Your task to perform on an android device: turn off javascript in the chrome app Image 0: 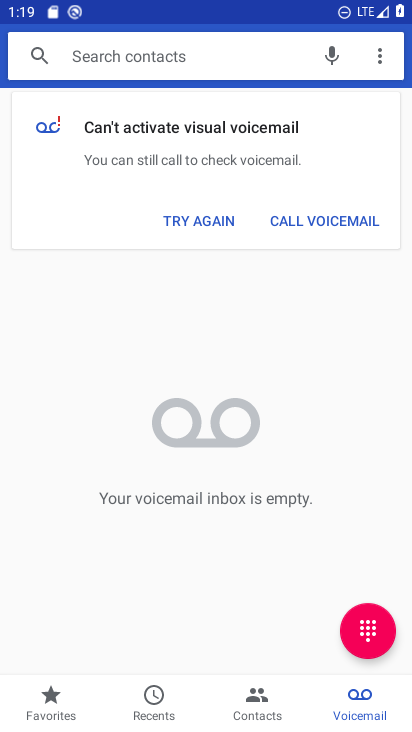
Step 0: press home button
Your task to perform on an android device: turn off javascript in the chrome app Image 1: 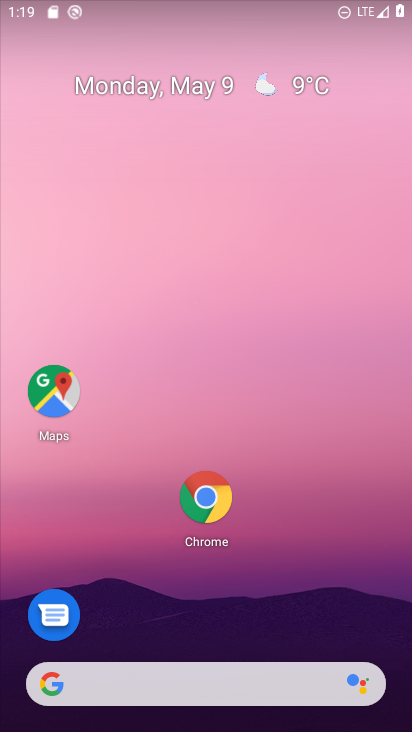
Step 1: drag from (324, 556) to (301, 221)
Your task to perform on an android device: turn off javascript in the chrome app Image 2: 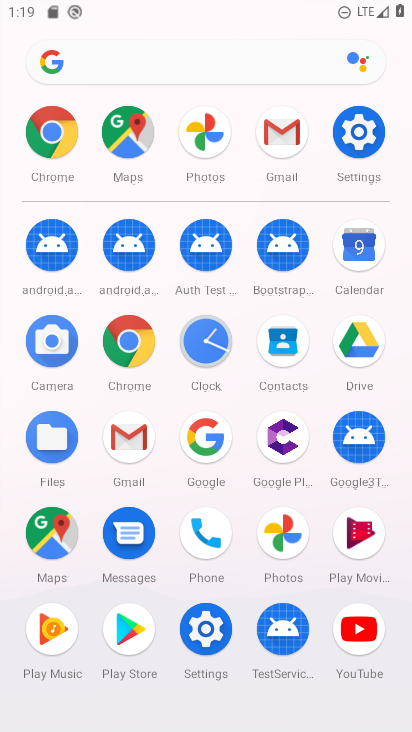
Step 2: click (125, 348)
Your task to perform on an android device: turn off javascript in the chrome app Image 3: 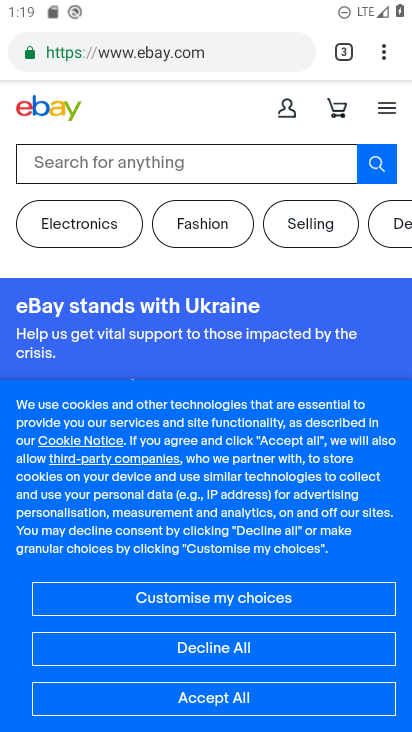
Step 3: drag from (385, 55) to (279, 638)
Your task to perform on an android device: turn off javascript in the chrome app Image 4: 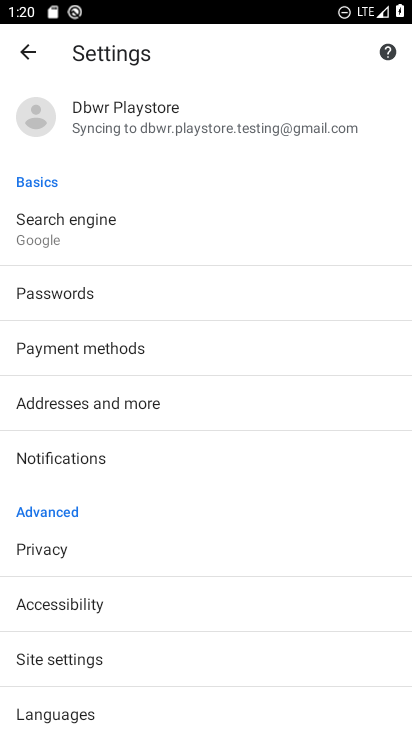
Step 4: drag from (175, 663) to (227, 331)
Your task to perform on an android device: turn off javascript in the chrome app Image 5: 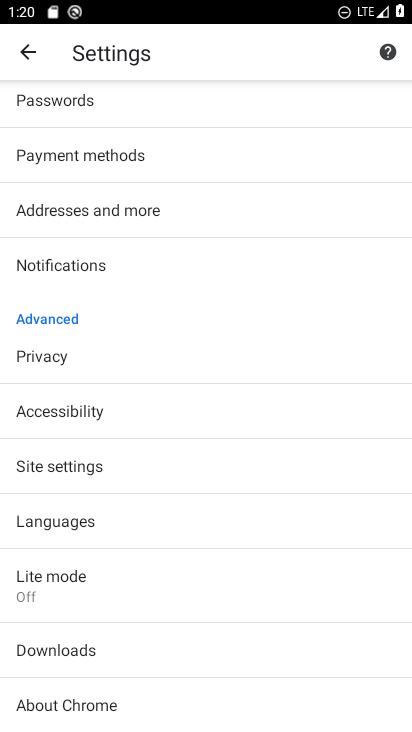
Step 5: click (109, 464)
Your task to perform on an android device: turn off javascript in the chrome app Image 6: 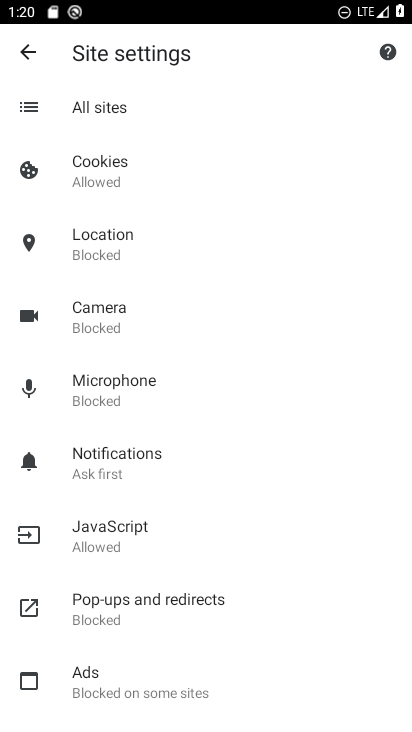
Step 6: click (106, 530)
Your task to perform on an android device: turn off javascript in the chrome app Image 7: 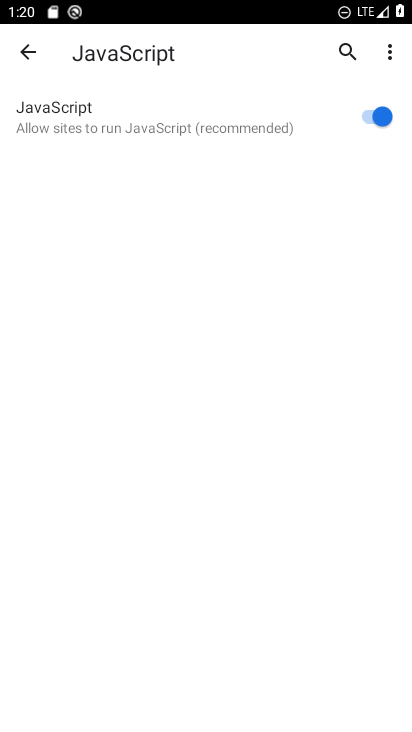
Step 7: click (366, 111)
Your task to perform on an android device: turn off javascript in the chrome app Image 8: 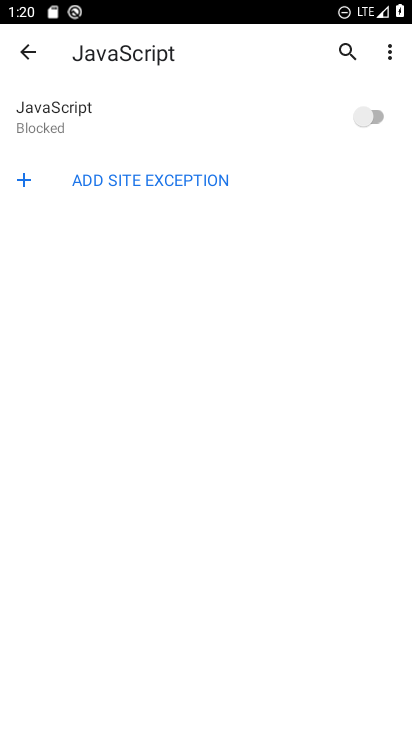
Step 8: task complete